Your task to perform on an android device: turn off javascript in the chrome app Image 0: 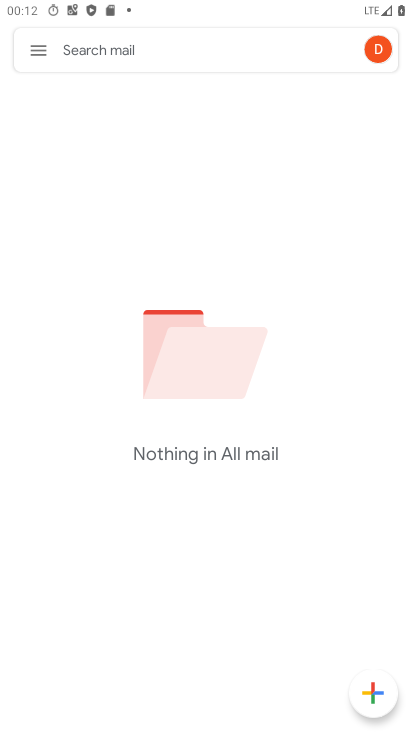
Step 0: press home button
Your task to perform on an android device: turn off javascript in the chrome app Image 1: 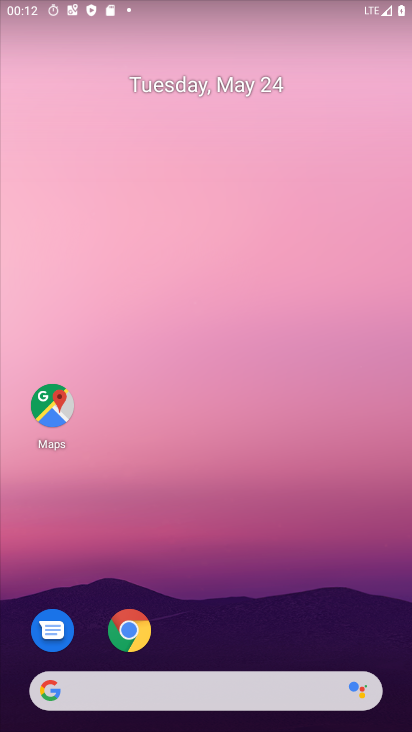
Step 1: click (131, 628)
Your task to perform on an android device: turn off javascript in the chrome app Image 2: 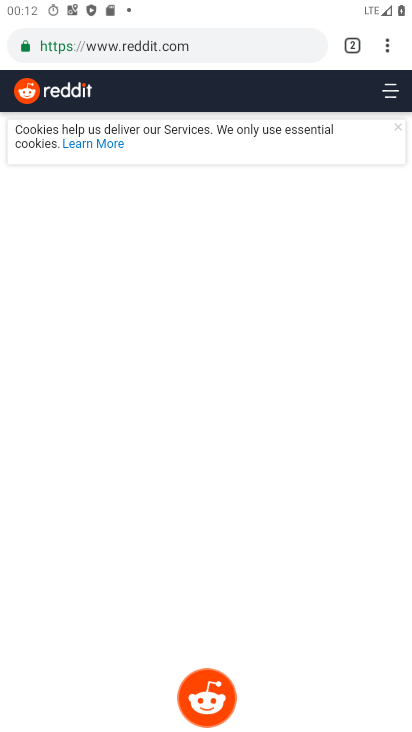
Step 2: click (387, 46)
Your task to perform on an android device: turn off javascript in the chrome app Image 3: 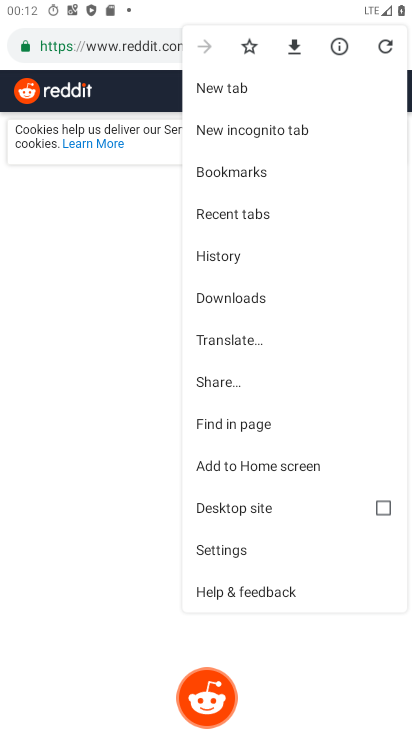
Step 3: click (226, 550)
Your task to perform on an android device: turn off javascript in the chrome app Image 4: 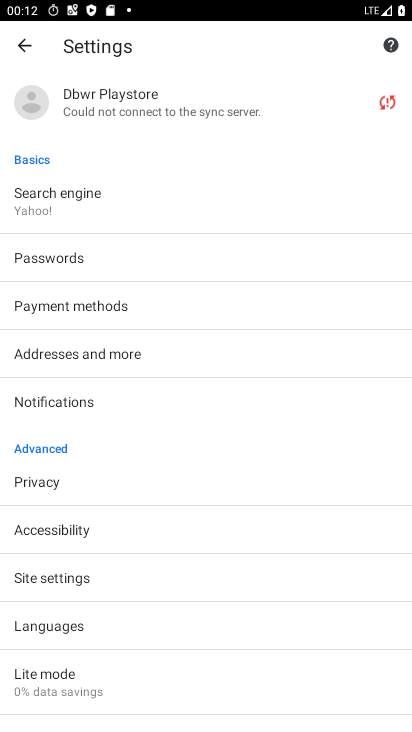
Step 4: click (66, 582)
Your task to perform on an android device: turn off javascript in the chrome app Image 5: 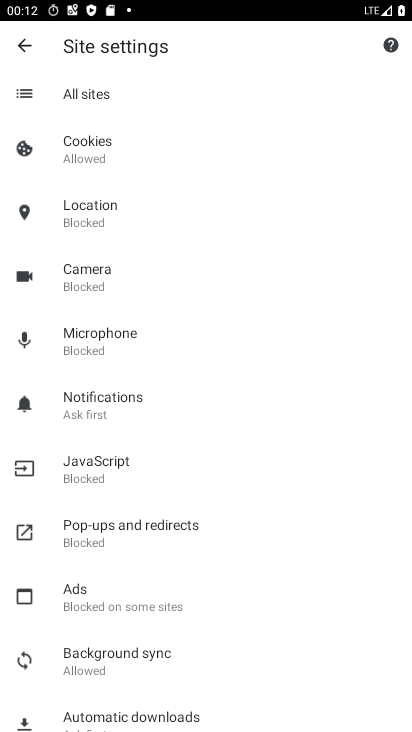
Step 5: click (80, 478)
Your task to perform on an android device: turn off javascript in the chrome app Image 6: 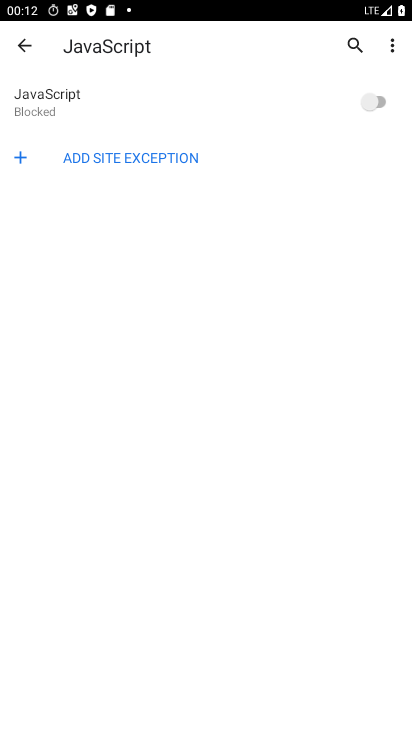
Step 6: task complete